Your task to perform on an android device: What's the weather going to be tomorrow? Image 0: 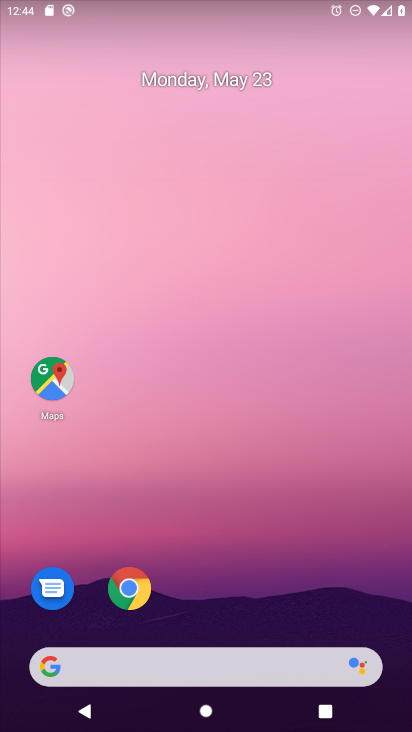
Step 0: drag from (285, 684) to (191, 117)
Your task to perform on an android device: What's the weather going to be tomorrow? Image 1: 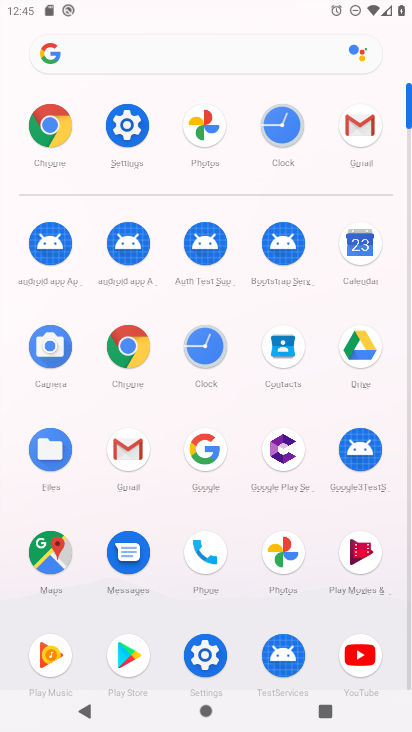
Step 1: click (119, 50)
Your task to perform on an android device: What's the weather going to be tomorrow? Image 2: 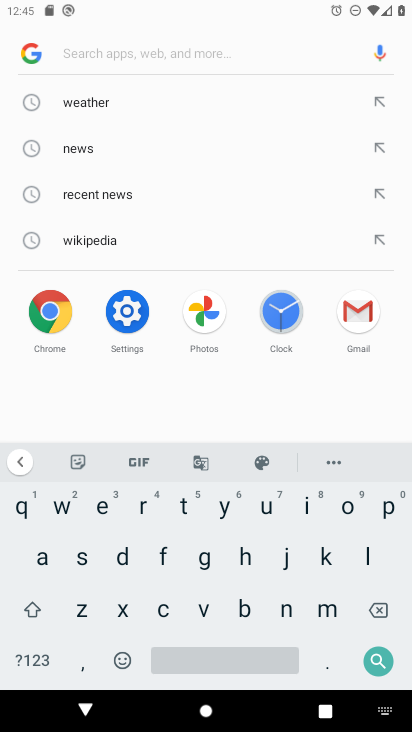
Step 2: click (116, 95)
Your task to perform on an android device: What's the weather going to be tomorrow? Image 3: 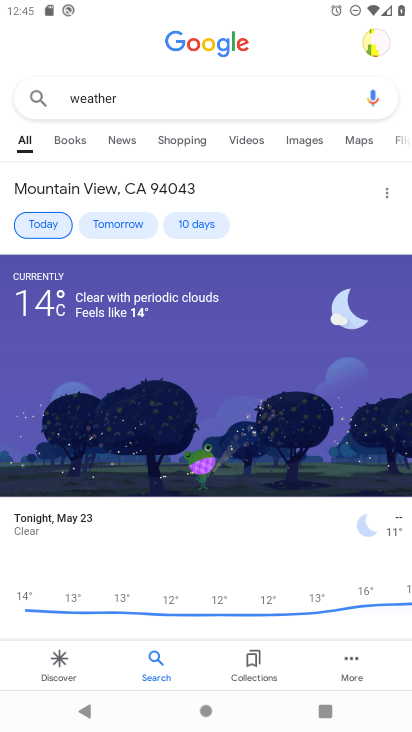
Step 3: click (97, 231)
Your task to perform on an android device: What's the weather going to be tomorrow? Image 4: 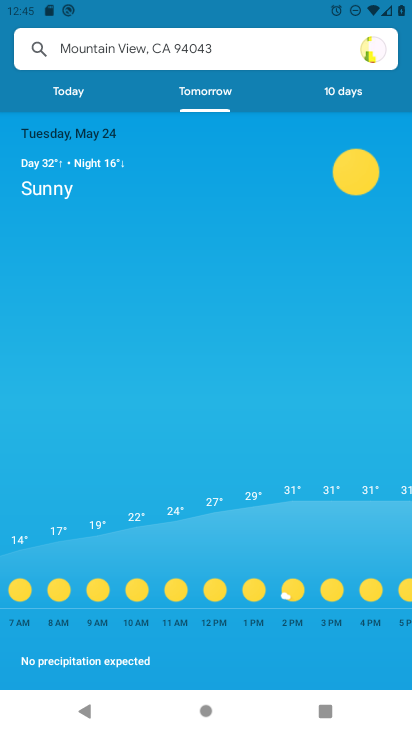
Step 4: task complete